Your task to perform on an android device: Open the map Image 0: 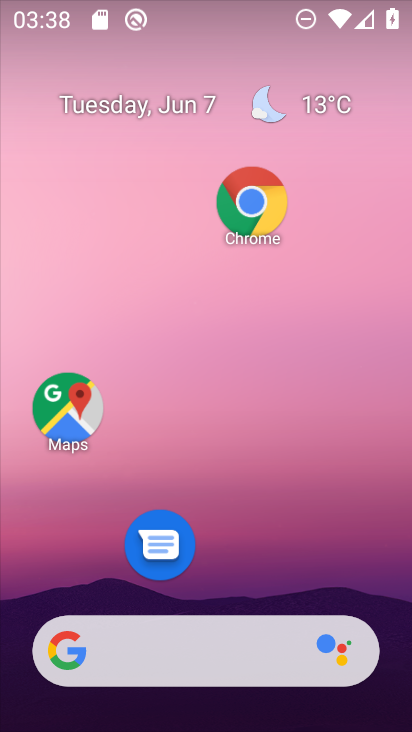
Step 0: click (84, 386)
Your task to perform on an android device: Open the map Image 1: 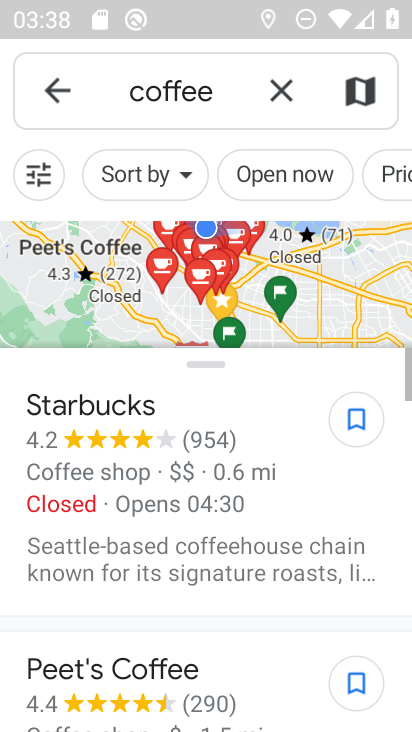
Step 1: click (297, 91)
Your task to perform on an android device: Open the map Image 2: 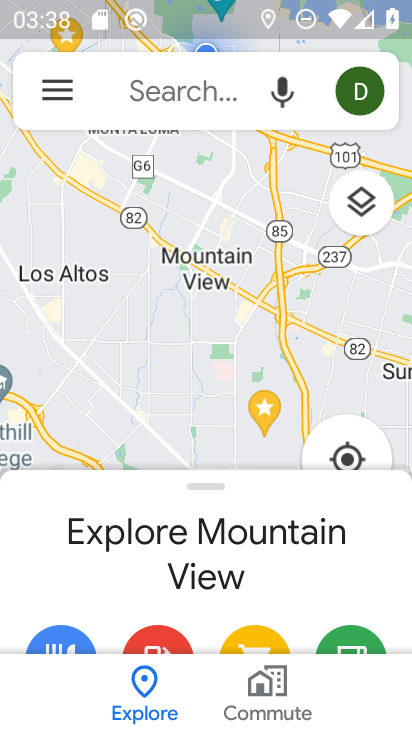
Step 2: task complete